Your task to perform on an android device: Open Google Image 0: 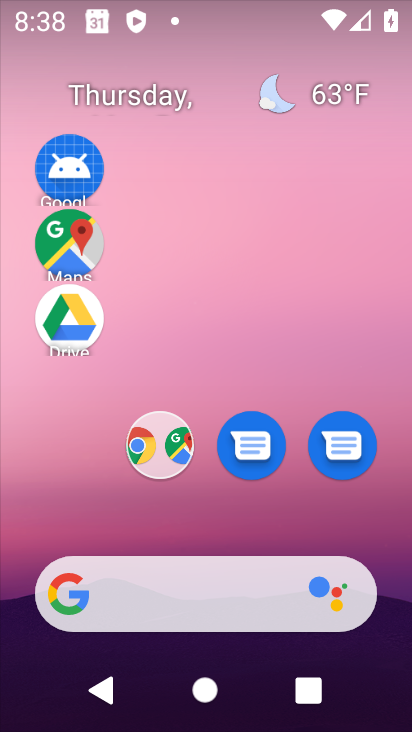
Step 0: click (179, 579)
Your task to perform on an android device: Open Google Image 1: 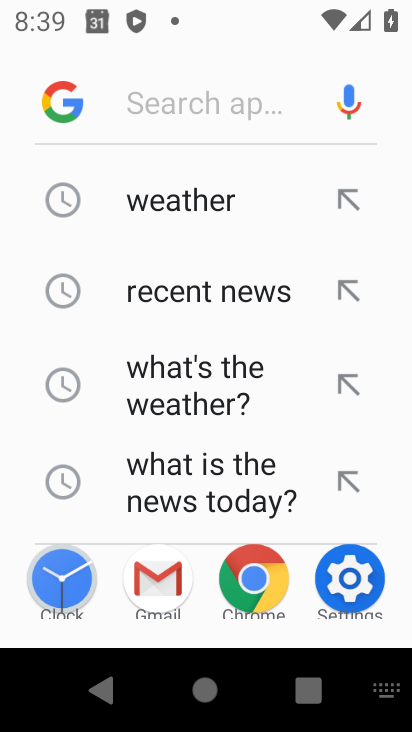
Step 1: task complete